Your task to perform on an android device: Go to settings Image 0: 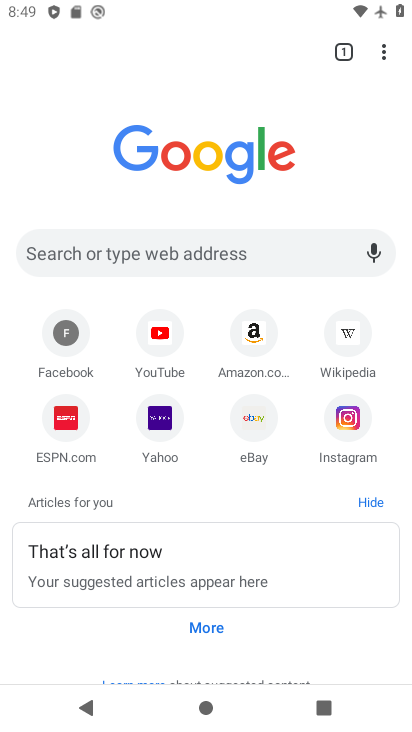
Step 0: press home button
Your task to perform on an android device: Go to settings Image 1: 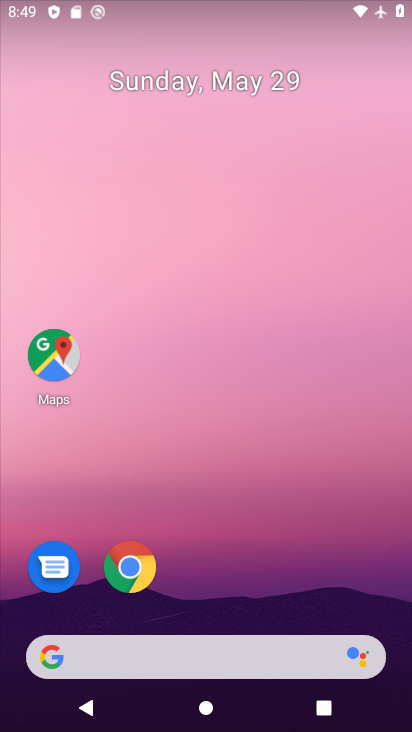
Step 1: drag from (380, 605) to (323, 14)
Your task to perform on an android device: Go to settings Image 2: 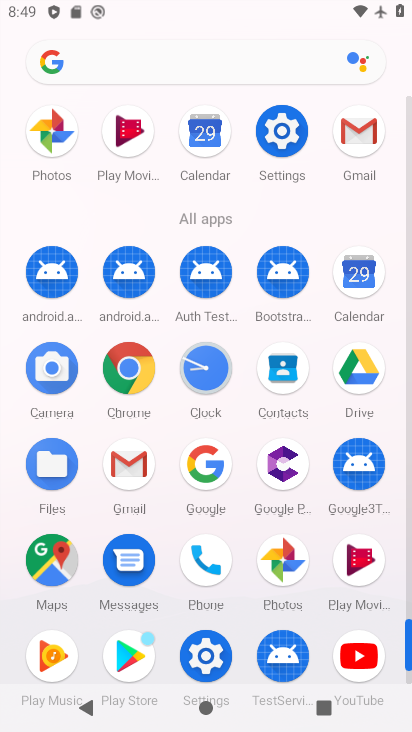
Step 2: click (208, 658)
Your task to perform on an android device: Go to settings Image 3: 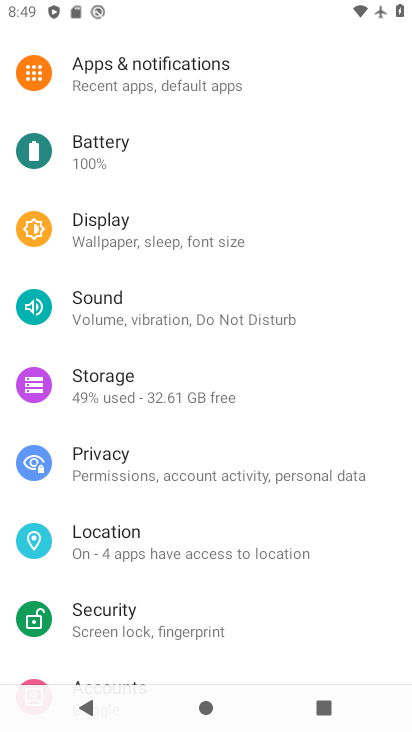
Step 3: task complete